Your task to perform on an android device: Go to Reddit.com Image 0: 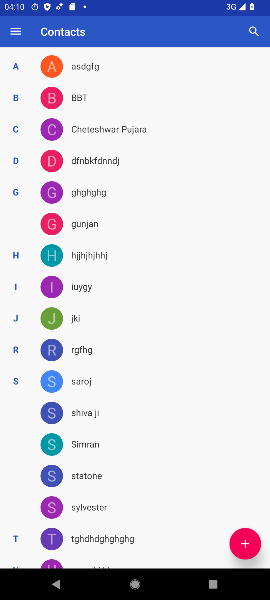
Step 0: press home button
Your task to perform on an android device: Go to Reddit.com Image 1: 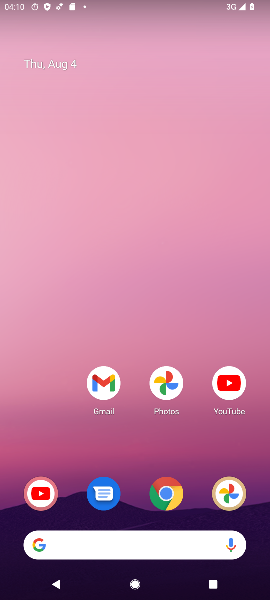
Step 1: click (78, 548)
Your task to perform on an android device: Go to Reddit.com Image 2: 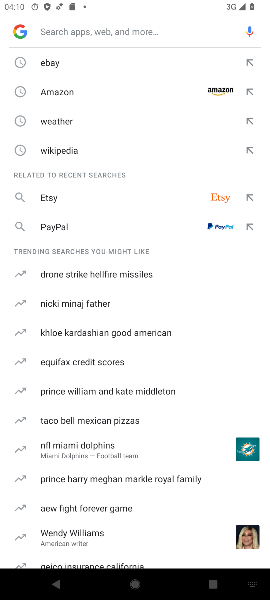
Step 2: type "Reddit.com"
Your task to perform on an android device: Go to Reddit.com Image 3: 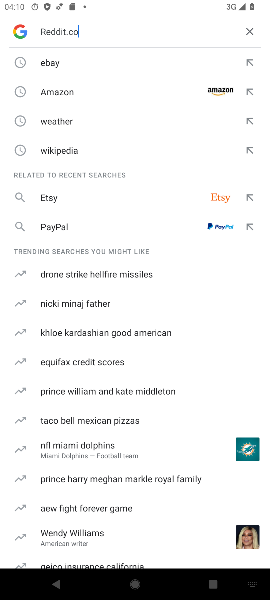
Step 3: type ""
Your task to perform on an android device: Go to Reddit.com Image 4: 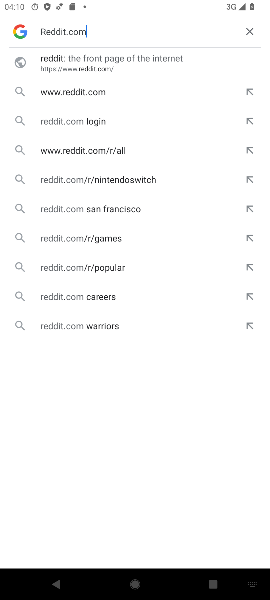
Step 4: click (56, 55)
Your task to perform on an android device: Go to Reddit.com Image 5: 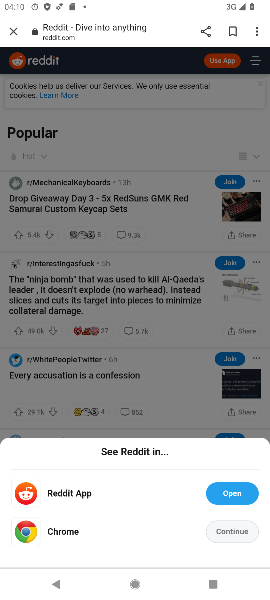
Step 5: click (237, 528)
Your task to perform on an android device: Go to Reddit.com Image 6: 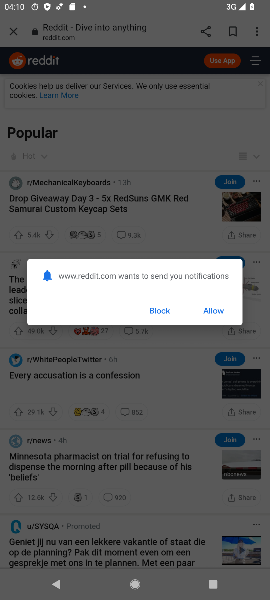
Step 6: task complete